Your task to perform on an android device: Search for flights from NYC to Tokyo Image 0: 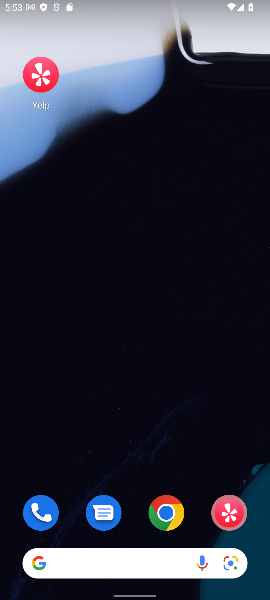
Step 0: type "f the speed of sound?"
Your task to perform on an android device: Search for flights from NYC to Tokyo Image 1: 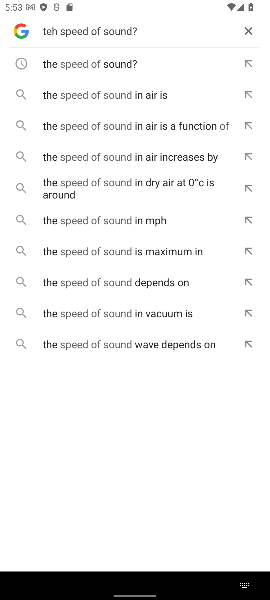
Step 1: click (247, 37)
Your task to perform on an android device: Search for flights from NYC to Tokyo Image 2: 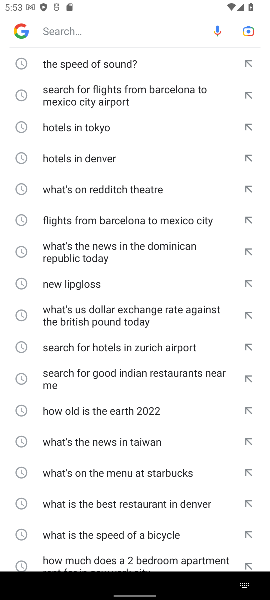
Step 2: type " flights from NYC to Tokyo"
Your task to perform on an android device: Search for flights from NYC to Tokyo Image 3: 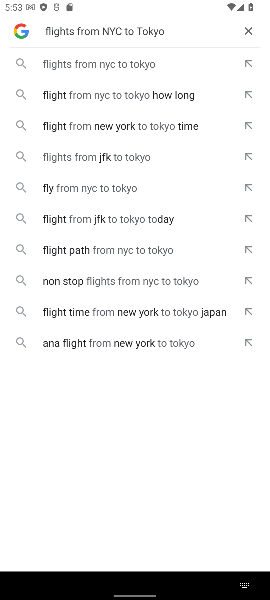
Step 3: click (107, 68)
Your task to perform on an android device: Search for flights from NYC to Tokyo Image 4: 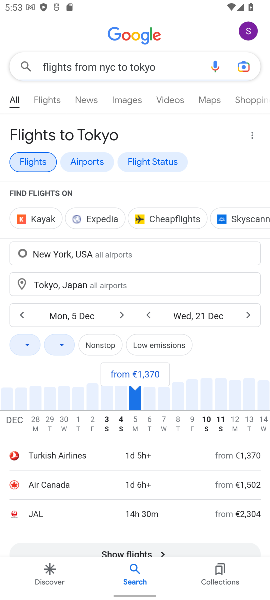
Step 4: task complete